Your task to perform on an android device: Search for pizza restaurants on Maps Image 0: 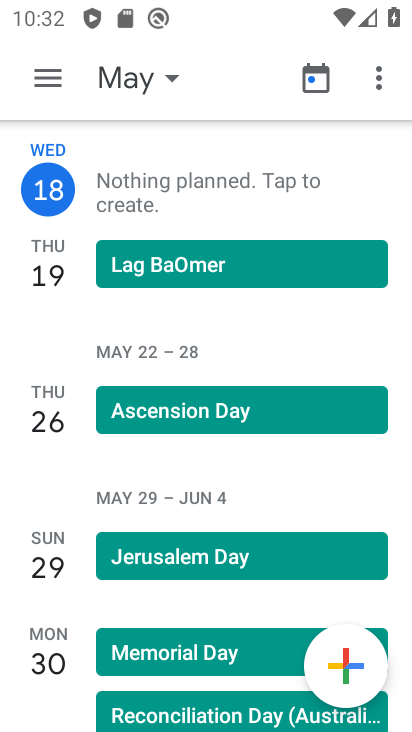
Step 0: press back button
Your task to perform on an android device: Search for pizza restaurants on Maps Image 1: 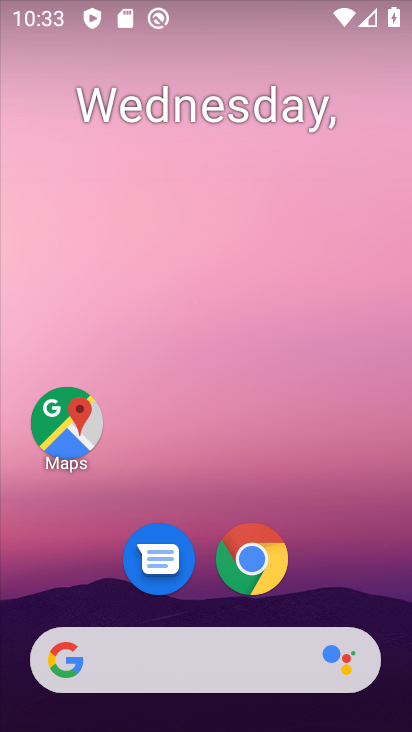
Step 1: click (70, 423)
Your task to perform on an android device: Search for pizza restaurants on Maps Image 2: 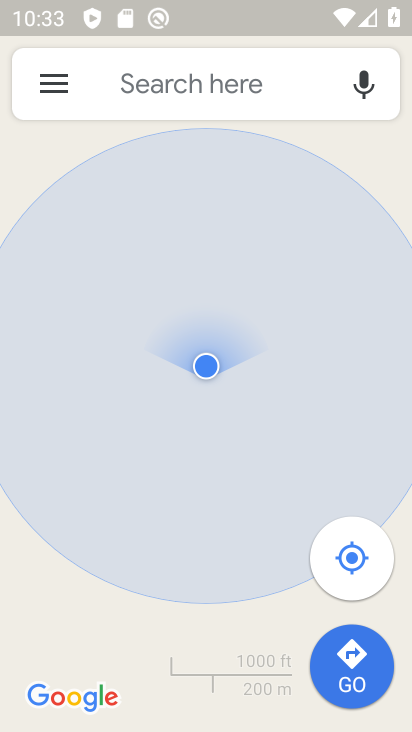
Step 2: click (293, 79)
Your task to perform on an android device: Search for pizza restaurants on Maps Image 3: 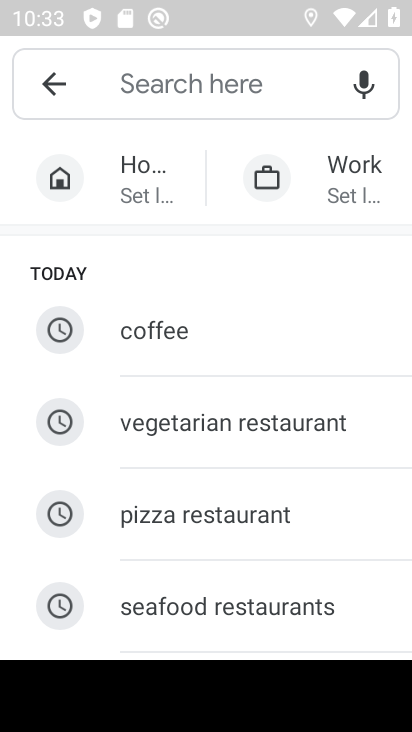
Step 3: type "pizza restaurants"
Your task to perform on an android device: Search for pizza restaurants on Maps Image 4: 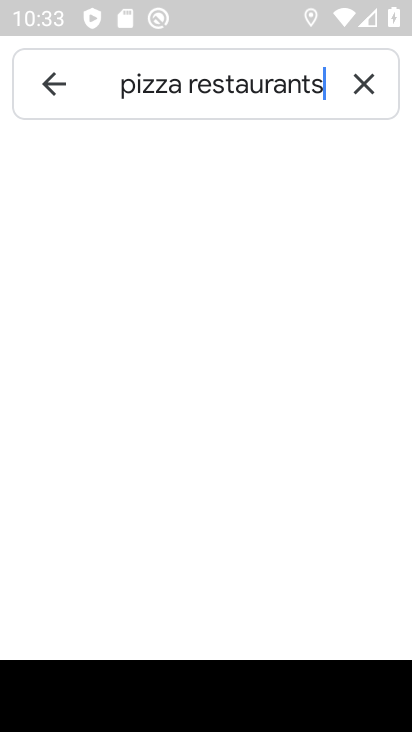
Step 4: type ""
Your task to perform on an android device: Search for pizza restaurants on Maps Image 5: 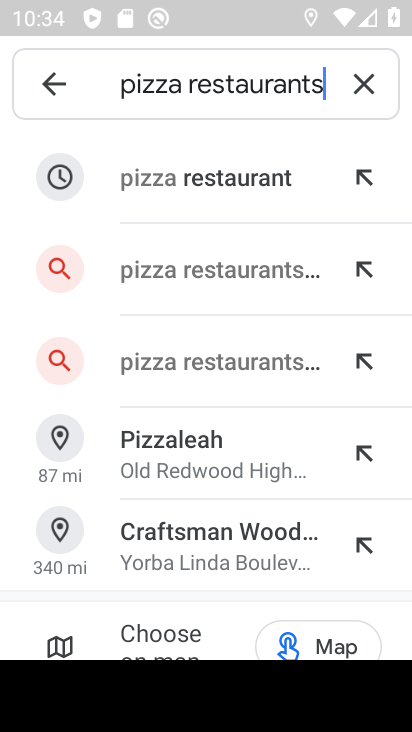
Step 5: click (212, 179)
Your task to perform on an android device: Search for pizza restaurants on Maps Image 6: 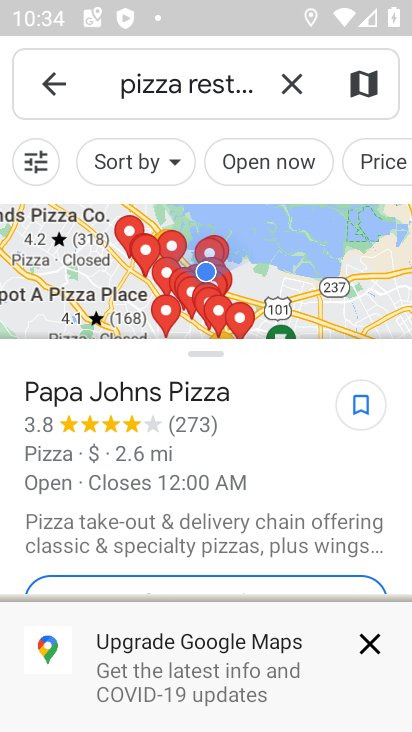
Step 6: task complete